Your task to perform on an android device: change the clock style Image 0: 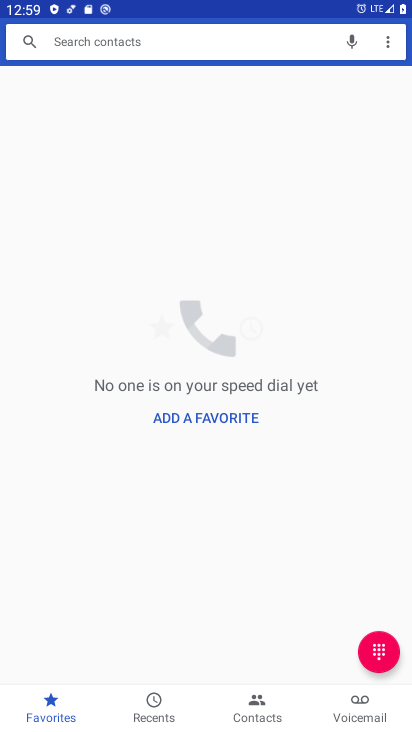
Step 0: press home button
Your task to perform on an android device: change the clock style Image 1: 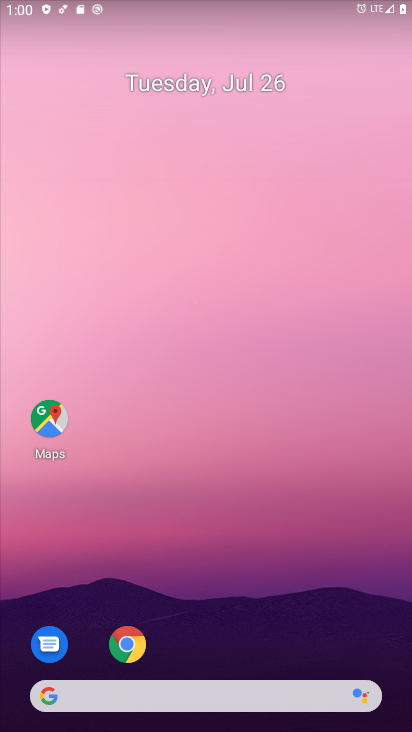
Step 1: drag from (209, 661) to (205, 84)
Your task to perform on an android device: change the clock style Image 2: 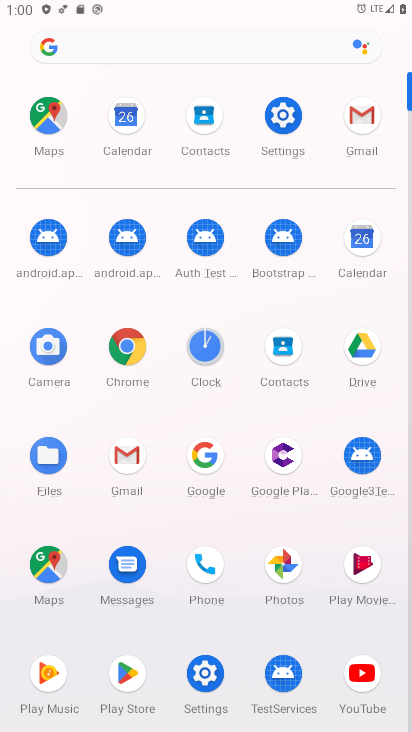
Step 2: click (204, 359)
Your task to perform on an android device: change the clock style Image 3: 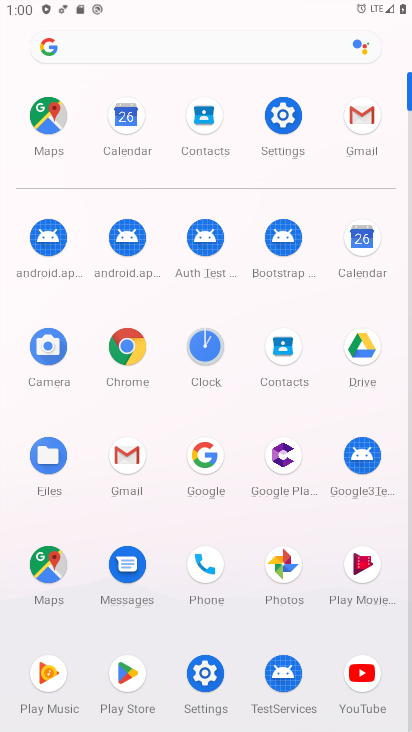
Step 3: click (204, 359)
Your task to perform on an android device: change the clock style Image 4: 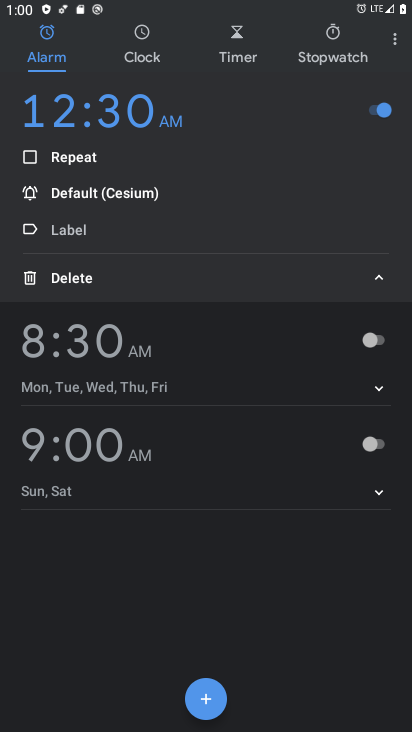
Step 4: click (395, 37)
Your task to perform on an android device: change the clock style Image 5: 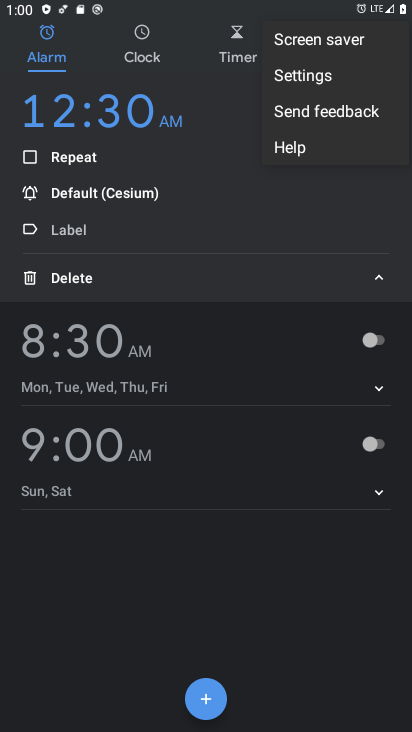
Step 5: click (339, 81)
Your task to perform on an android device: change the clock style Image 6: 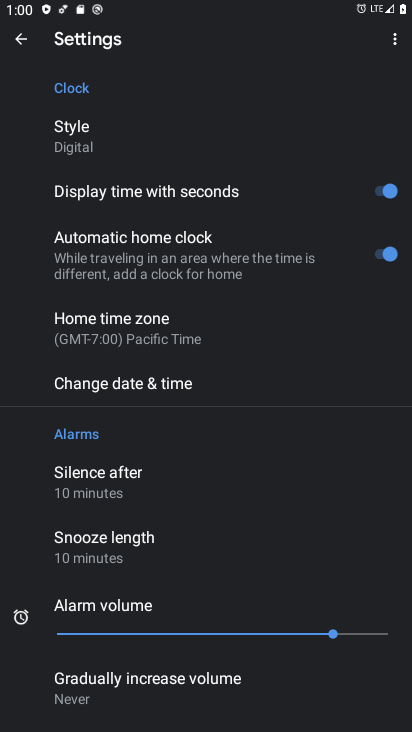
Step 6: click (80, 147)
Your task to perform on an android device: change the clock style Image 7: 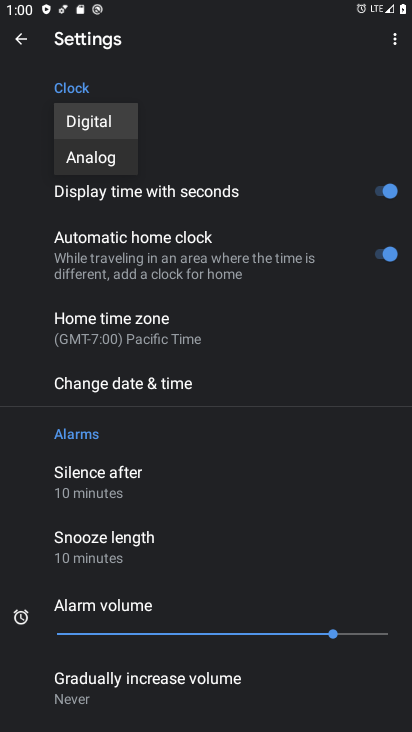
Step 7: click (111, 164)
Your task to perform on an android device: change the clock style Image 8: 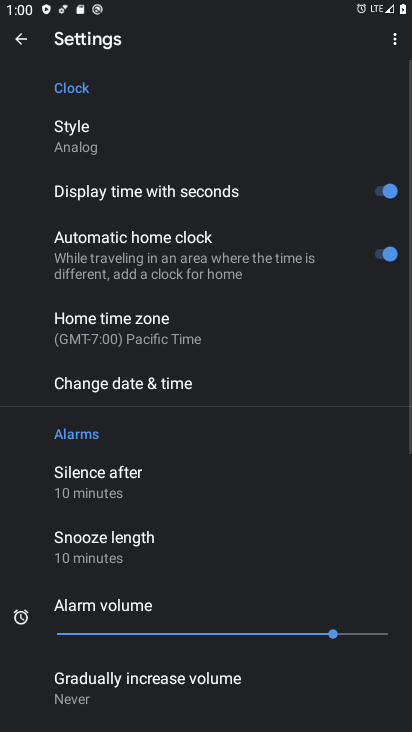
Step 8: task complete